Your task to perform on an android device: Search for Mexican restaurants on Maps Image 0: 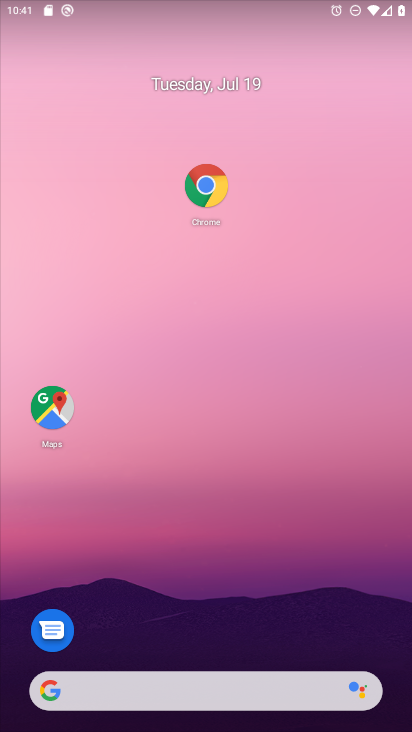
Step 0: drag from (242, 639) to (313, 126)
Your task to perform on an android device: Search for Mexican restaurants on Maps Image 1: 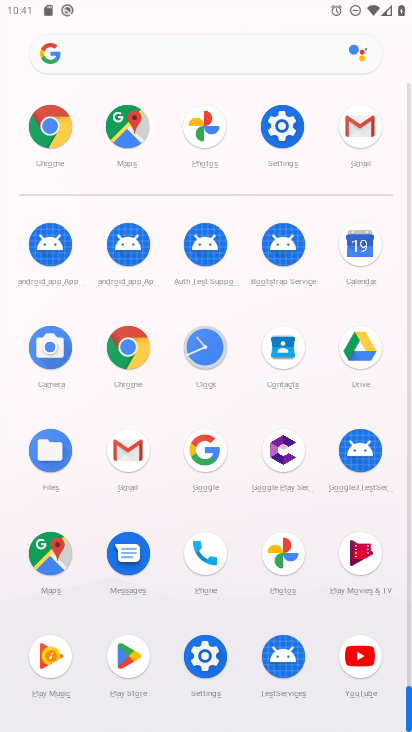
Step 1: click (49, 572)
Your task to perform on an android device: Search for Mexican restaurants on Maps Image 2: 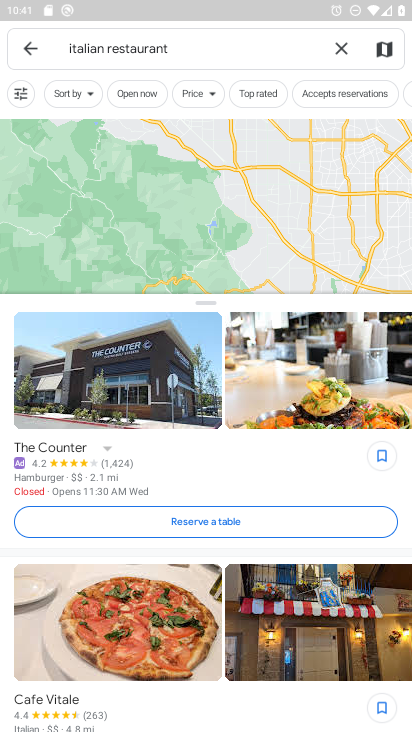
Step 2: click (335, 50)
Your task to perform on an android device: Search for Mexican restaurants on Maps Image 3: 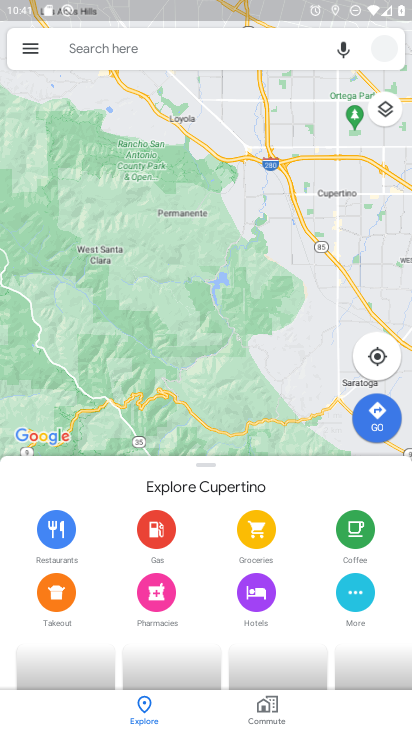
Step 3: click (242, 51)
Your task to perform on an android device: Search for Mexican restaurants on Maps Image 4: 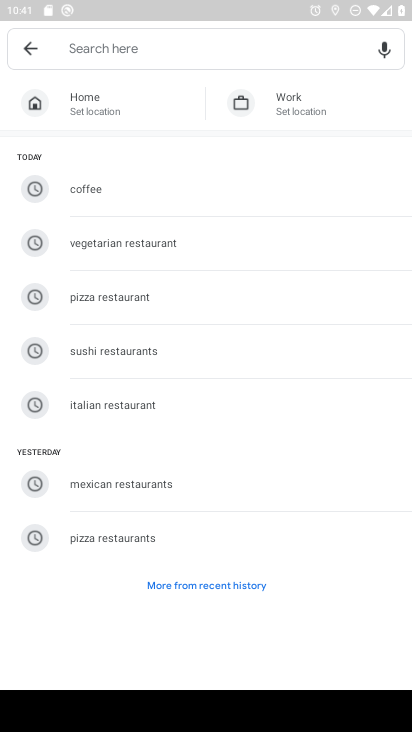
Step 4: click (123, 484)
Your task to perform on an android device: Search for Mexican restaurants on Maps Image 5: 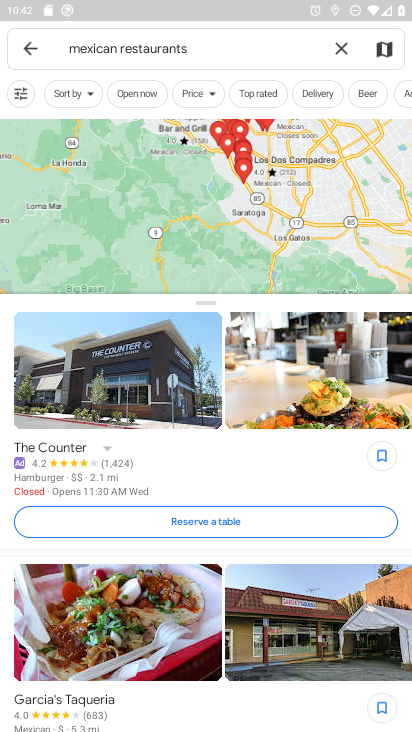
Step 5: task complete